Your task to perform on an android device: delete location history Image 0: 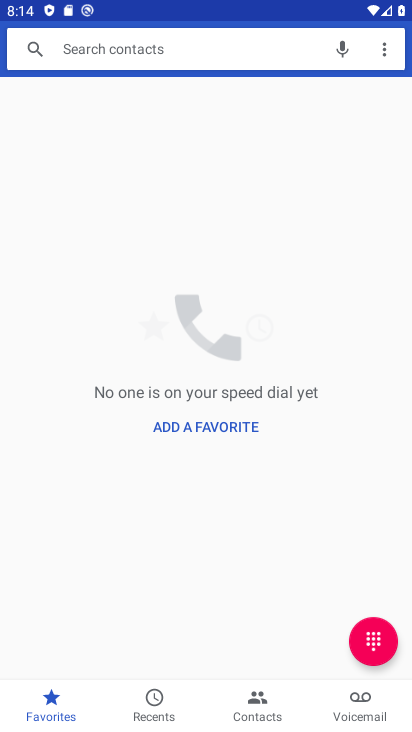
Step 0: press home button
Your task to perform on an android device: delete location history Image 1: 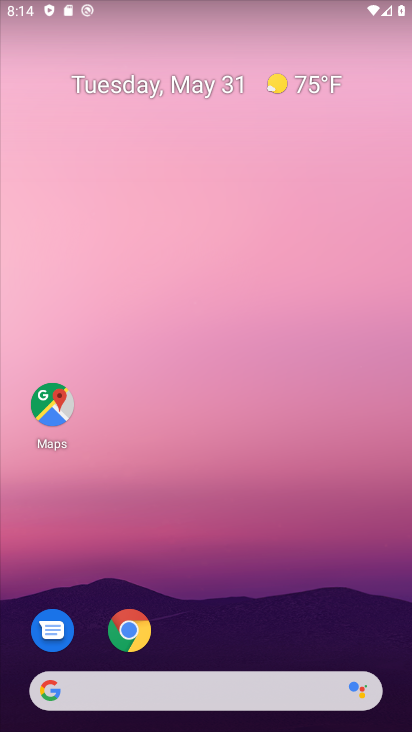
Step 1: drag from (182, 630) to (191, 190)
Your task to perform on an android device: delete location history Image 2: 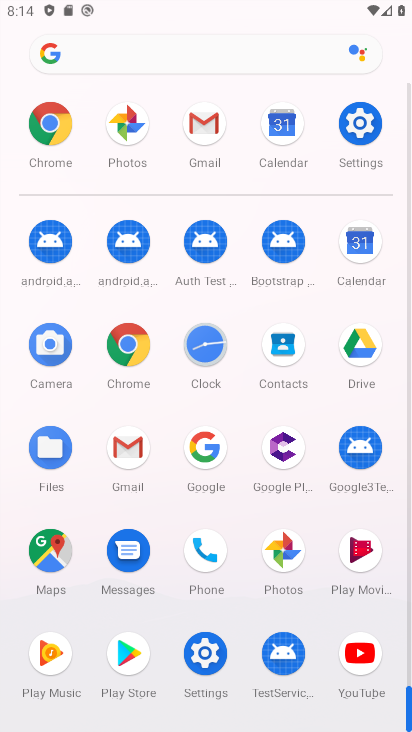
Step 2: drag from (204, 479) to (245, 301)
Your task to perform on an android device: delete location history Image 3: 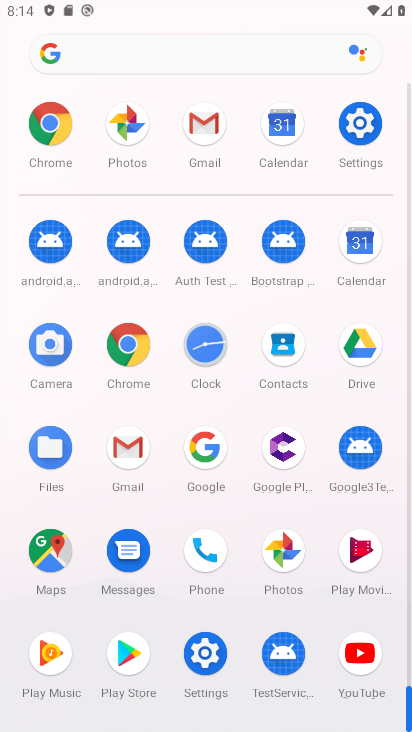
Step 3: click (209, 658)
Your task to perform on an android device: delete location history Image 4: 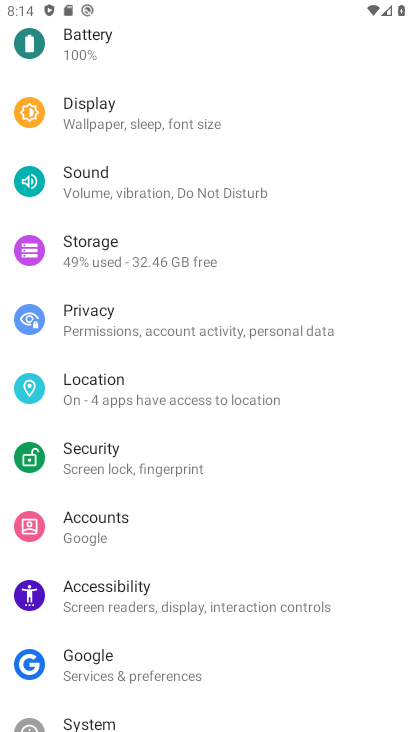
Step 4: click (187, 399)
Your task to perform on an android device: delete location history Image 5: 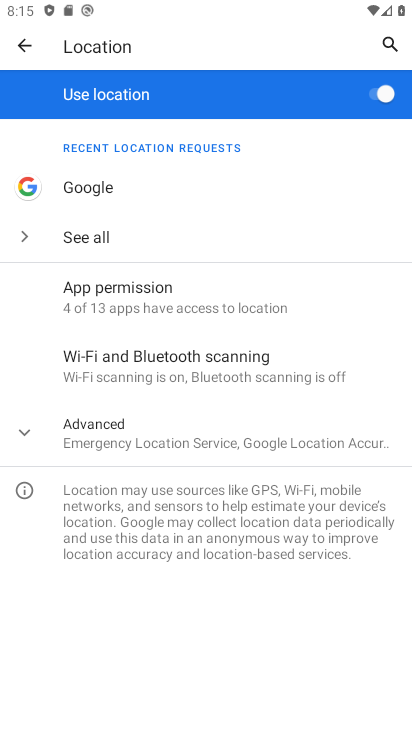
Step 5: click (178, 427)
Your task to perform on an android device: delete location history Image 6: 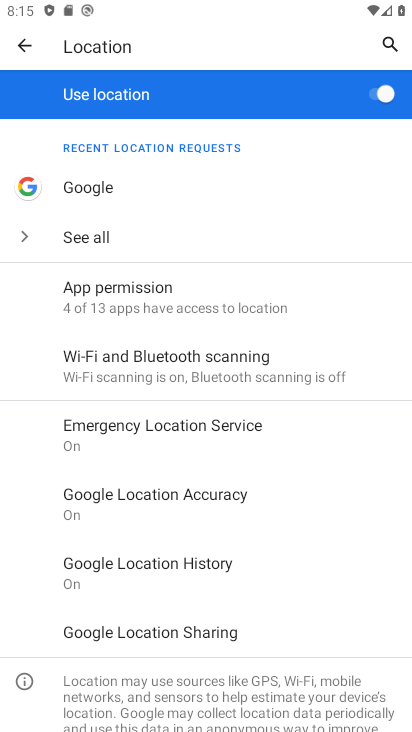
Step 6: click (214, 560)
Your task to perform on an android device: delete location history Image 7: 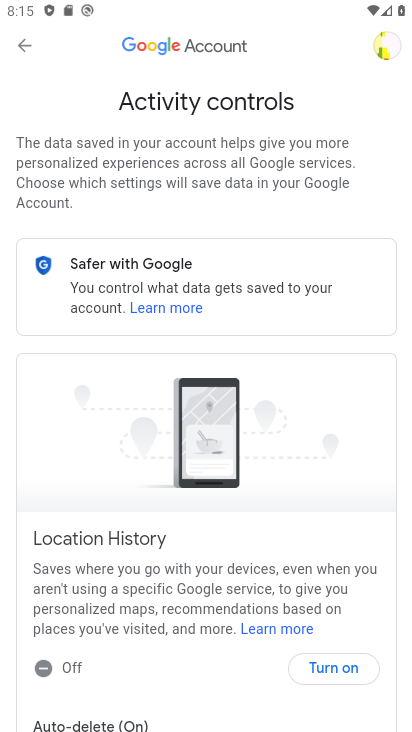
Step 7: drag from (203, 579) to (248, 226)
Your task to perform on an android device: delete location history Image 8: 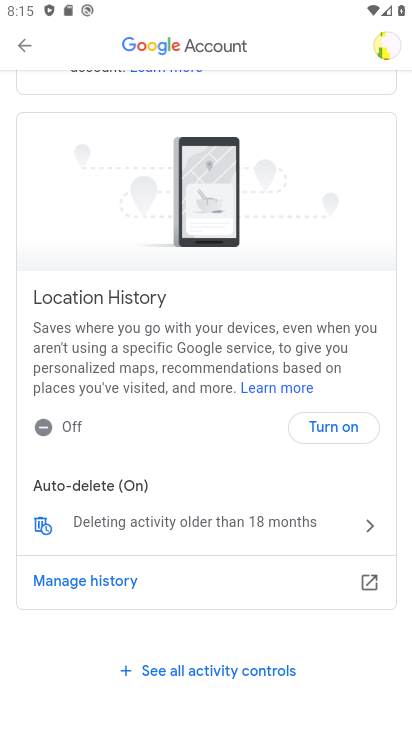
Step 8: drag from (194, 540) to (237, 191)
Your task to perform on an android device: delete location history Image 9: 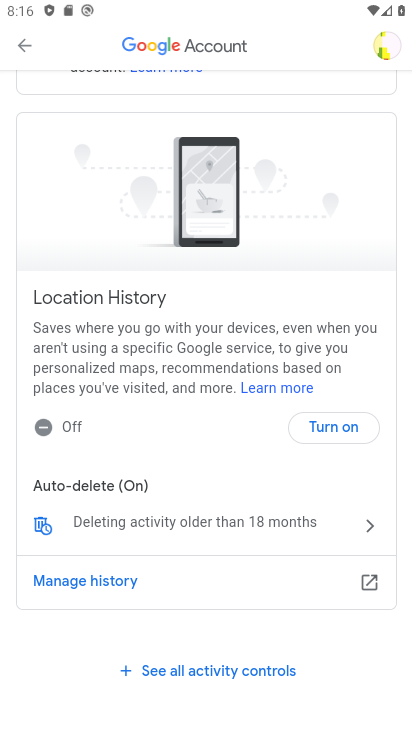
Step 9: click (212, 531)
Your task to perform on an android device: delete location history Image 10: 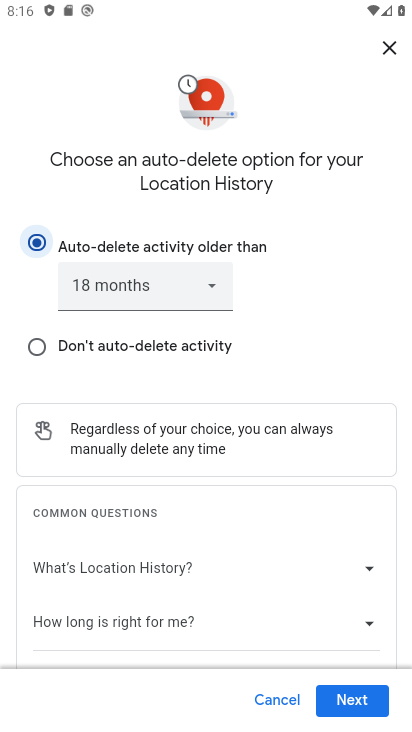
Step 10: click (361, 698)
Your task to perform on an android device: delete location history Image 11: 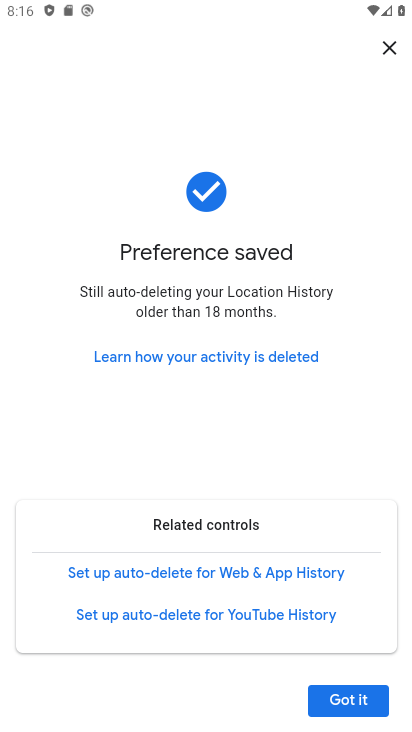
Step 11: click (349, 704)
Your task to perform on an android device: delete location history Image 12: 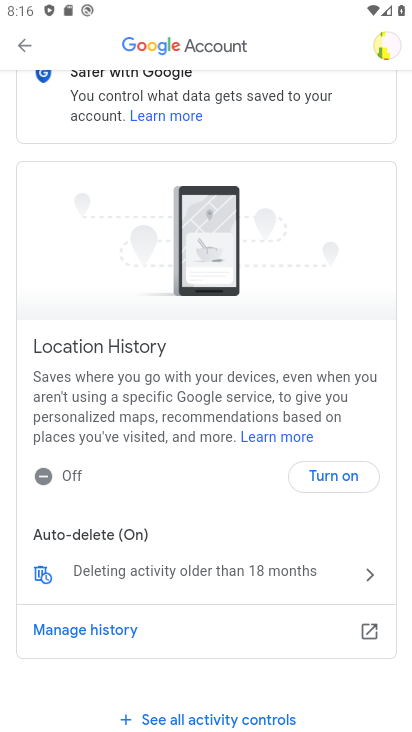
Step 12: task complete